Your task to perform on an android device: set an alarm Image 0: 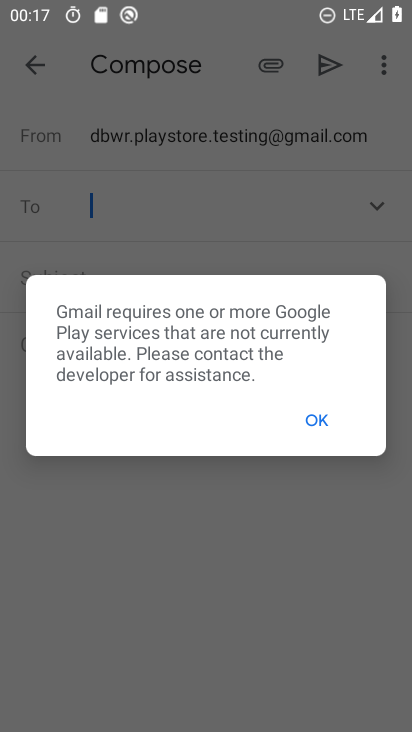
Step 0: press home button
Your task to perform on an android device: set an alarm Image 1: 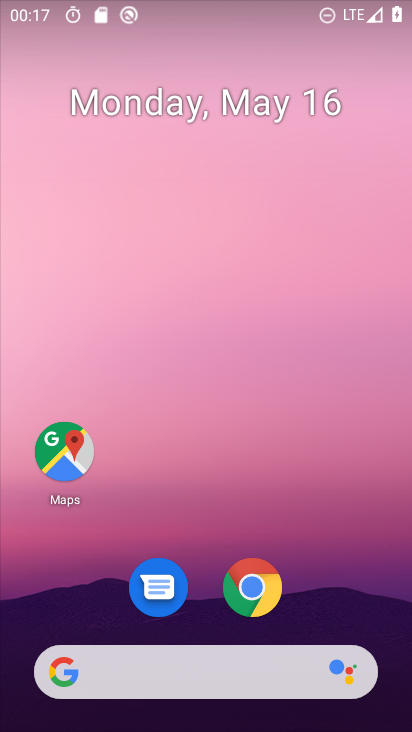
Step 1: drag from (203, 613) to (192, 207)
Your task to perform on an android device: set an alarm Image 2: 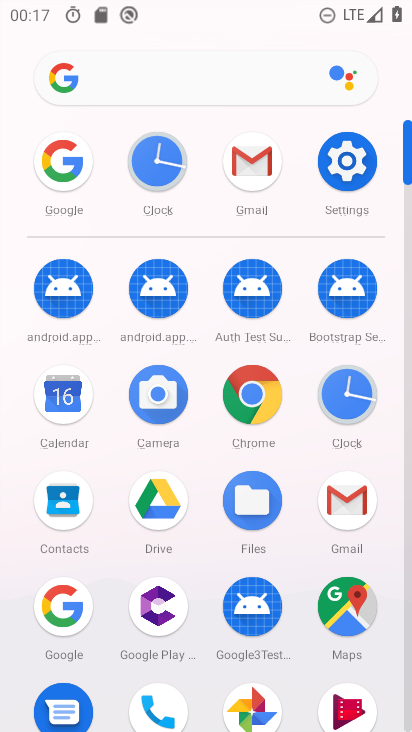
Step 2: click (336, 385)
Your task to perform on an android device: set an alarm Image 3: 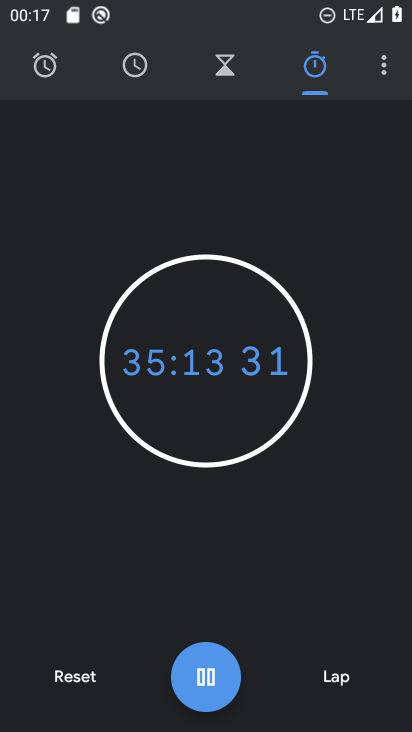
Step 3: click (35, 68)
Your task to perform on an android device: set an alarm Image 4: 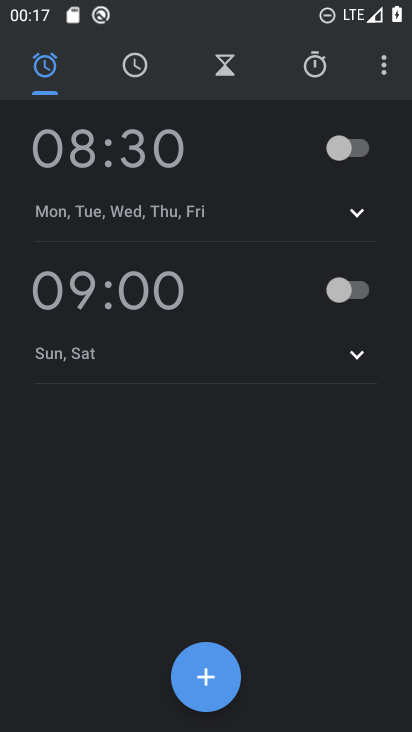
Step 4: click (359, 154)
Your task to perform on an android device: set an alarm Image 5: 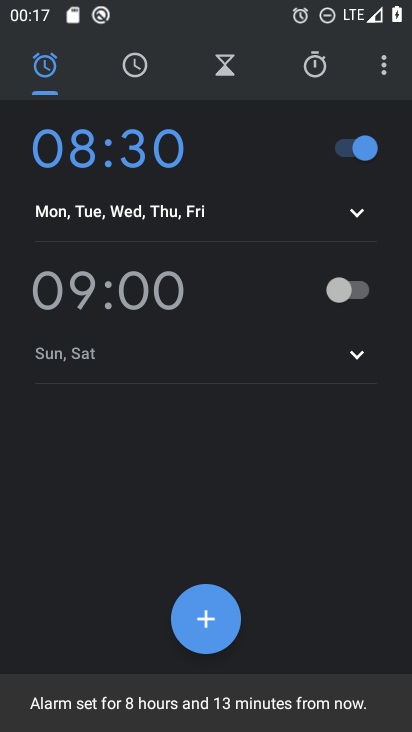
Step 5: task complete